Your task to perform on an android device: Show me the alarms in the clock app Image 0: 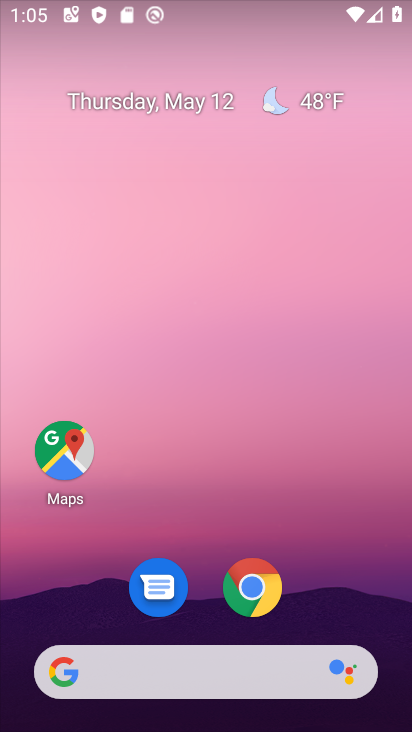
Step 0: drag from (201, 680) to (281, 106)
Your task to perform on an android device: Show me the alarms in the clock app Image 1: 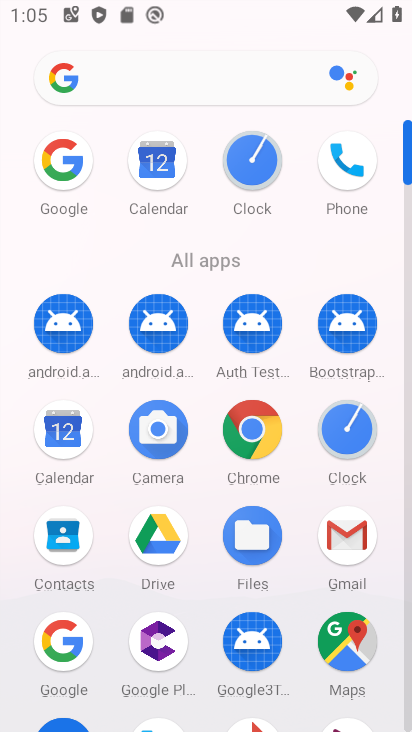
Step 1: click (358, 453)
Your task to perform on an android device: Show me the alarms in the clock app Image 2: 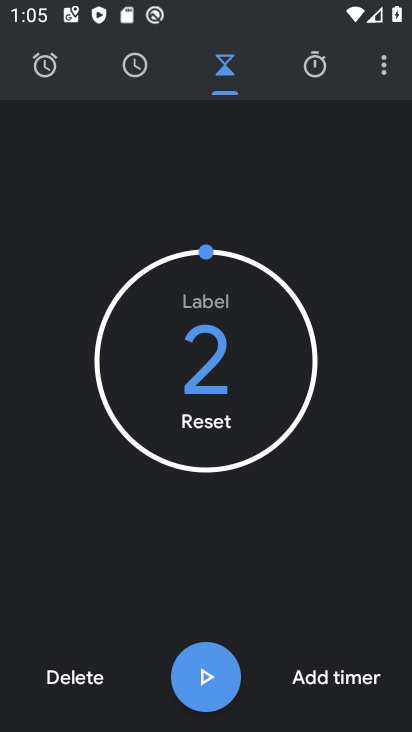
Step 2: click (48, 92)
Your task to perform on an android device: Show me the alarms in the clock app Image 3: 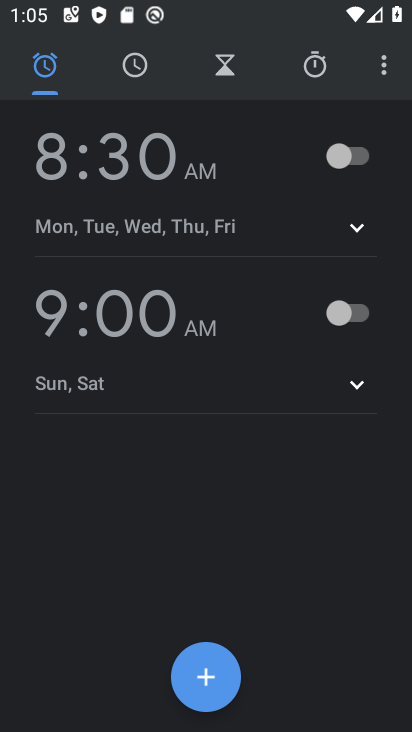
Step 3: task complete